Your task to perform on an android device: make emails show in primary in the gmail app Image 0: 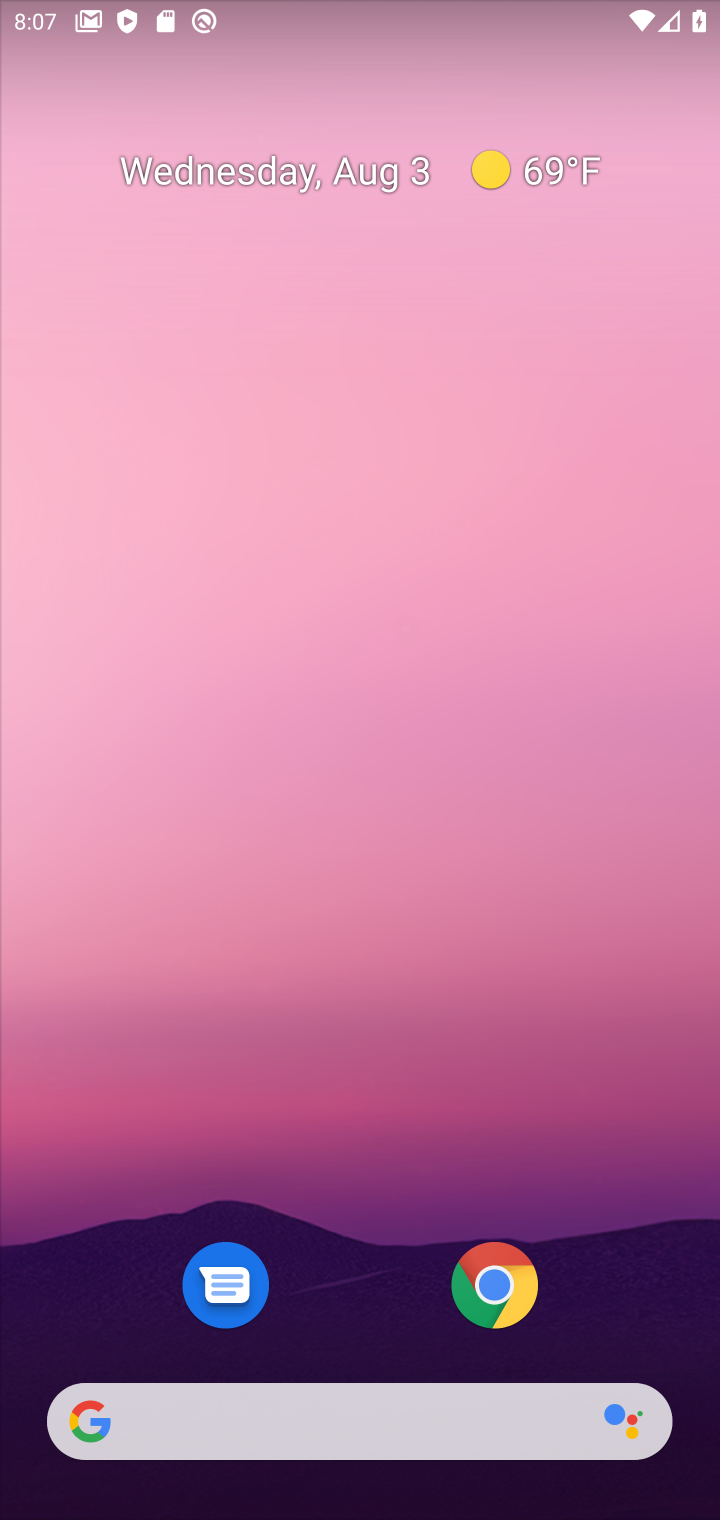
Step 0: click (648, 1268)
Your task to perform on an android device: make emails show in primary in the gmail app Image 1: 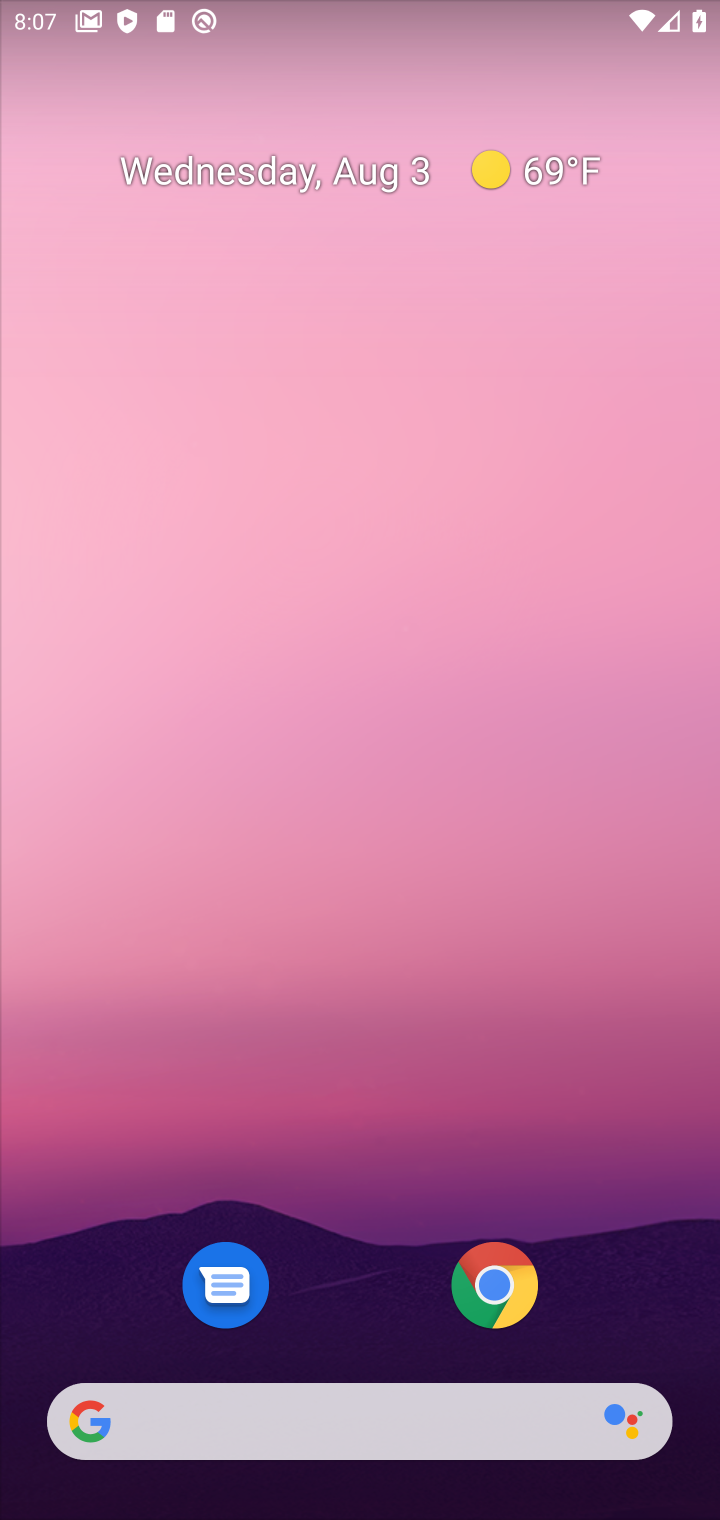
Step 1: drag from (637, 1279) to (637, 354)
Your task to perform on an android device: make emails show in primary in the gmail app Image 2: 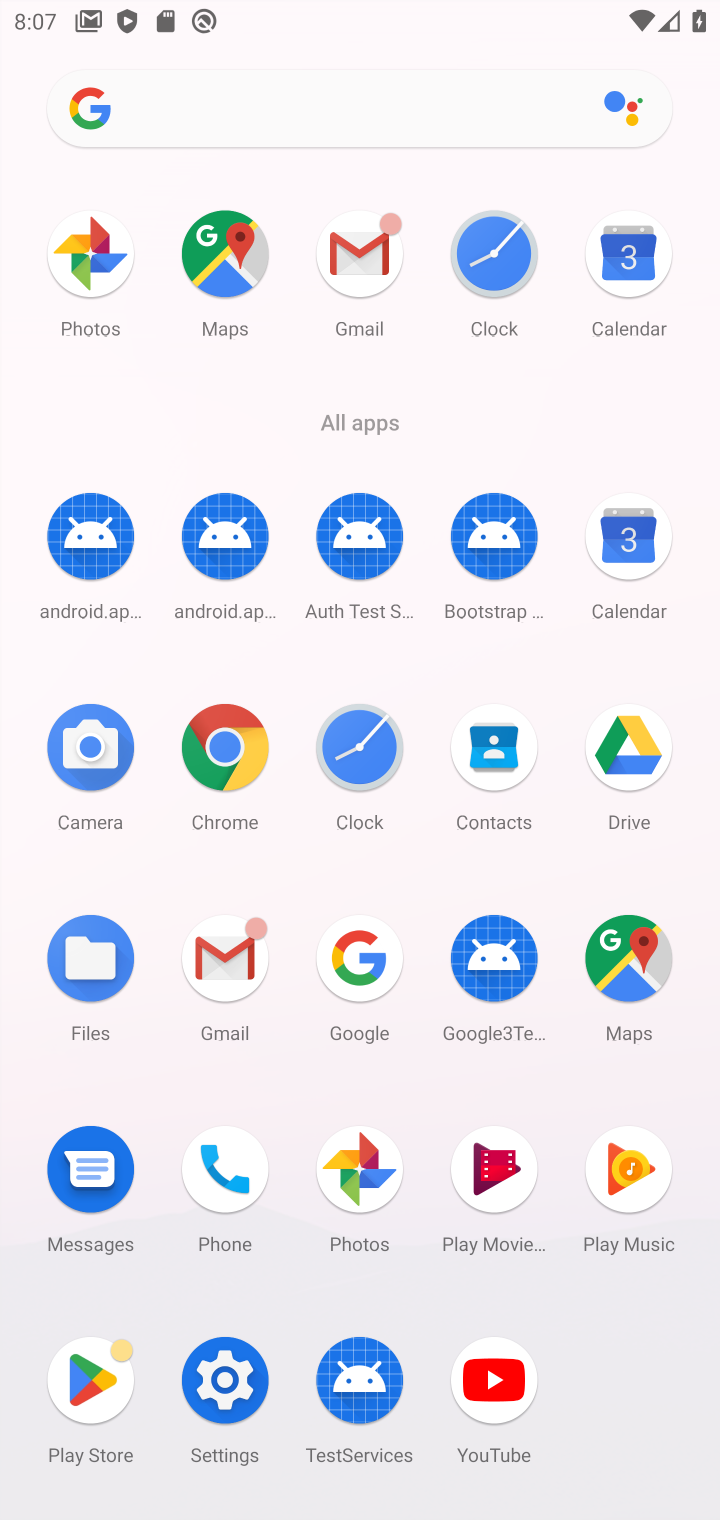
Step 2: click (638, 350)
Your task to perform on an android device: make emails show in primary in the gmail app Image 3: 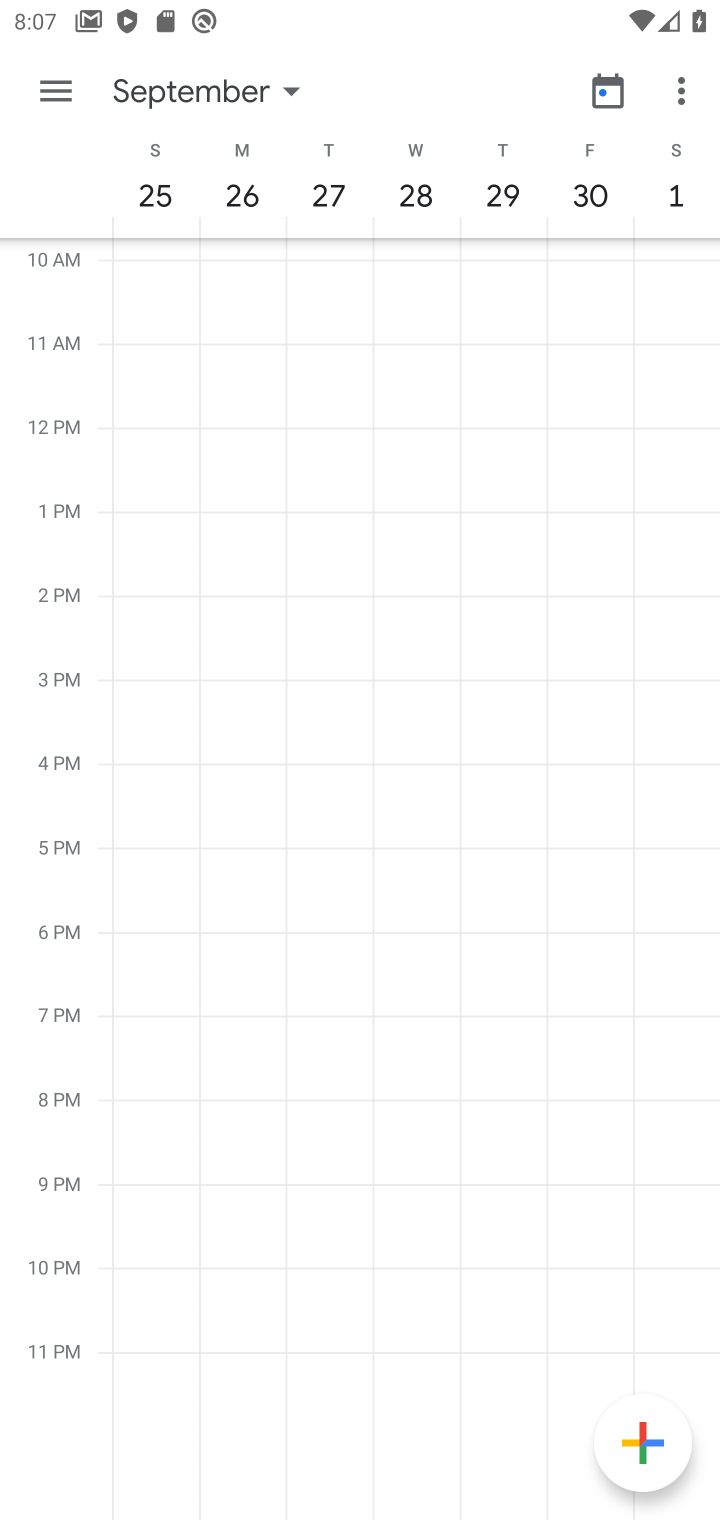
Step 3: press home button
Your task to perform on an android device: make emails show in primary in the gmail app Image 4: 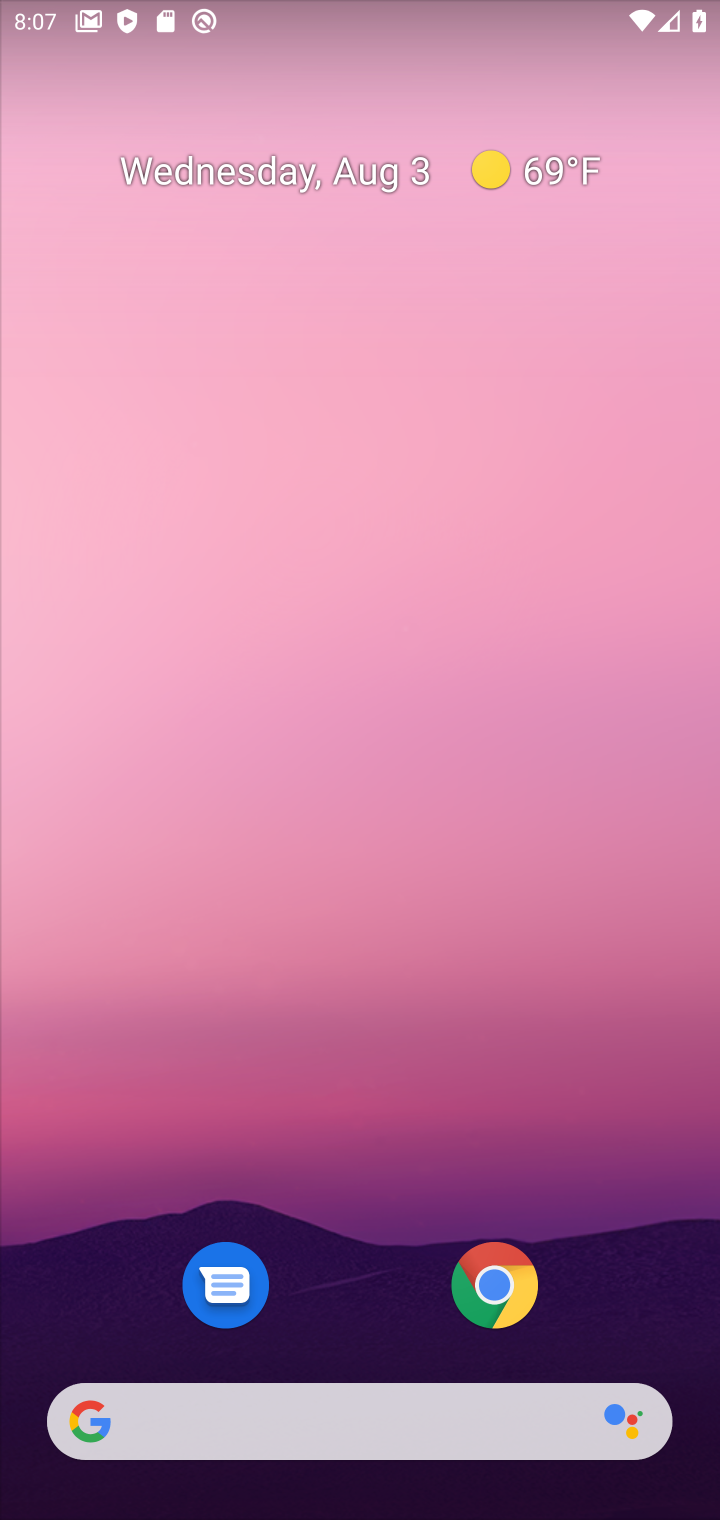
Step 4: drag from (612, 1266) to (478, 258)
Your task to perform on an android device: make emails show in primary in the gmail app Image 5: 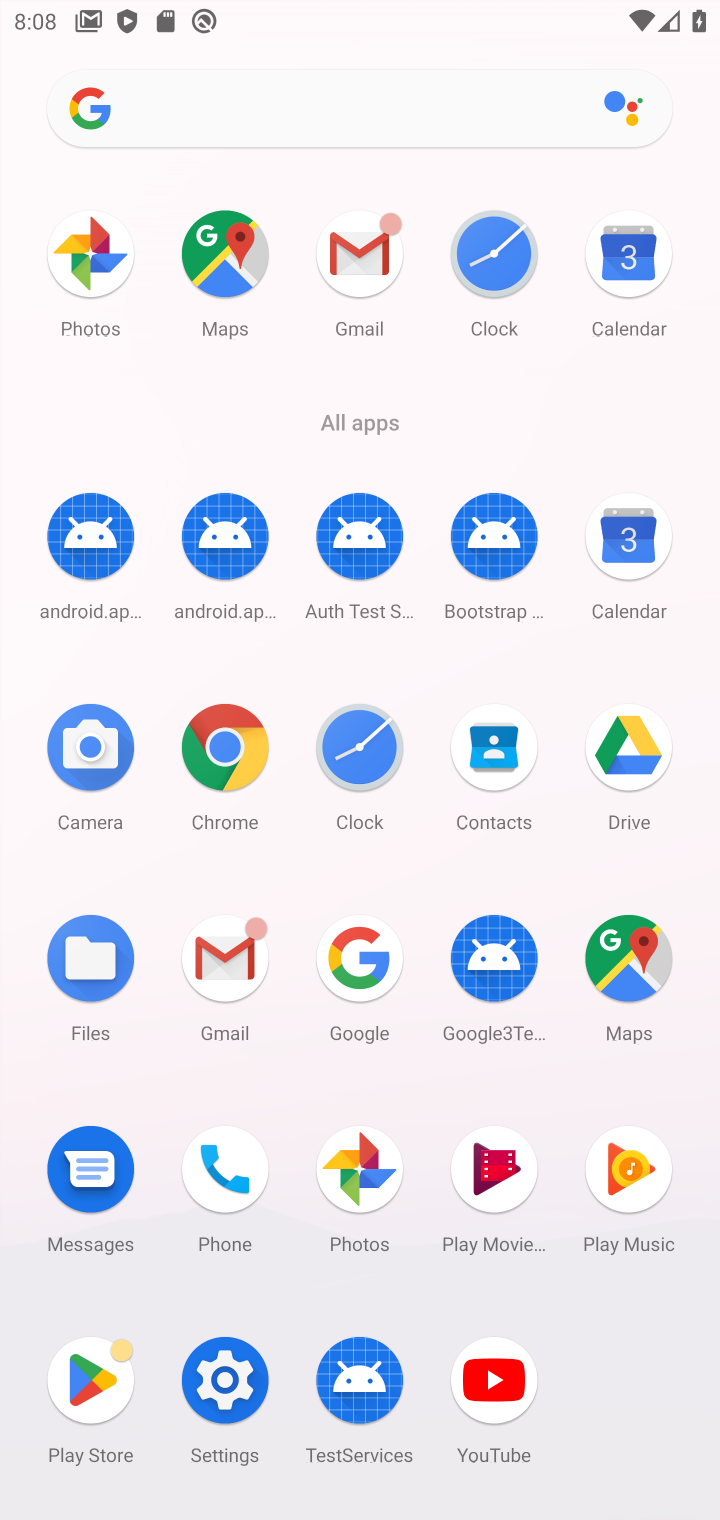
Step 5: click (197, 941)
Your task to perform on an android device: make emails show in primary in the gmail app Image 6: 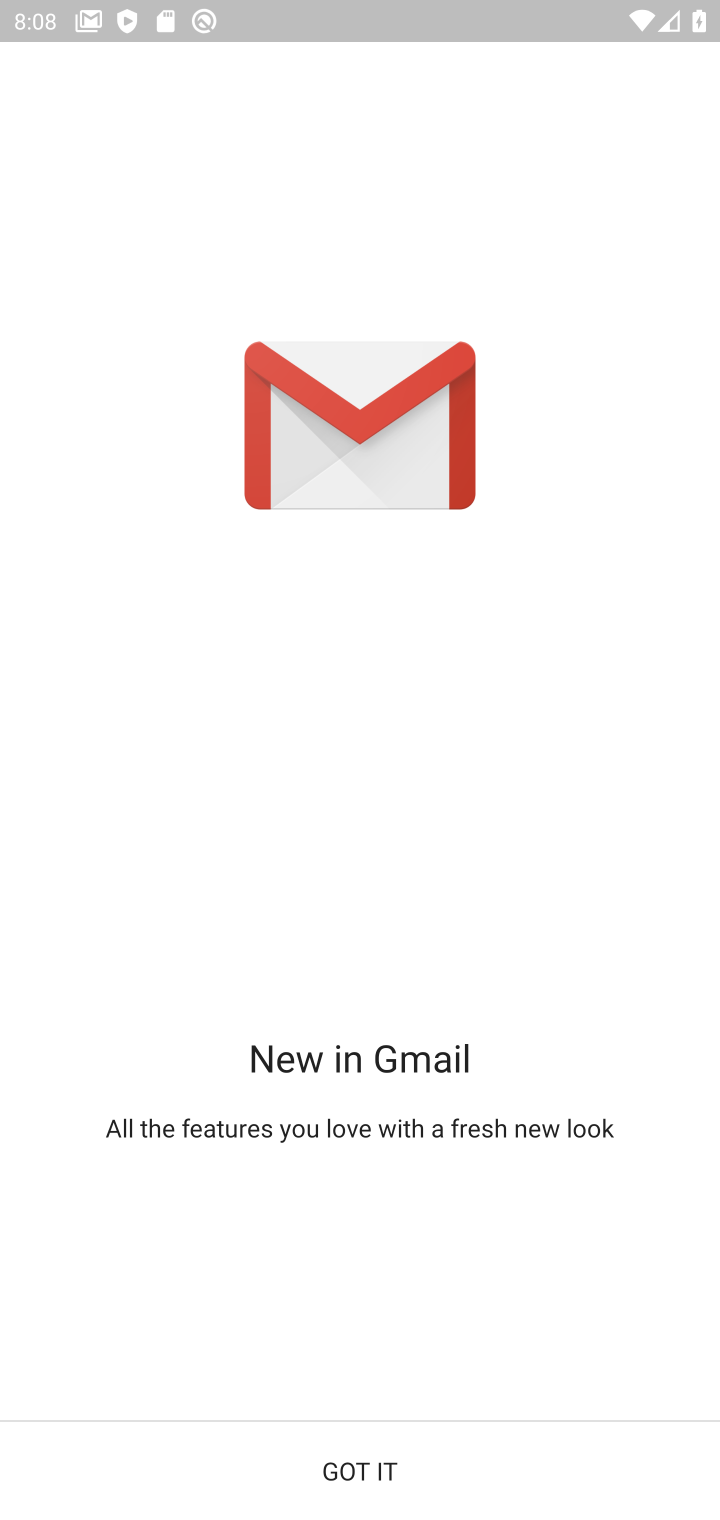
Step 6: click (495, 1484)
Your task to perform on an android device: make emails show in primary in the gmail app Image 7: 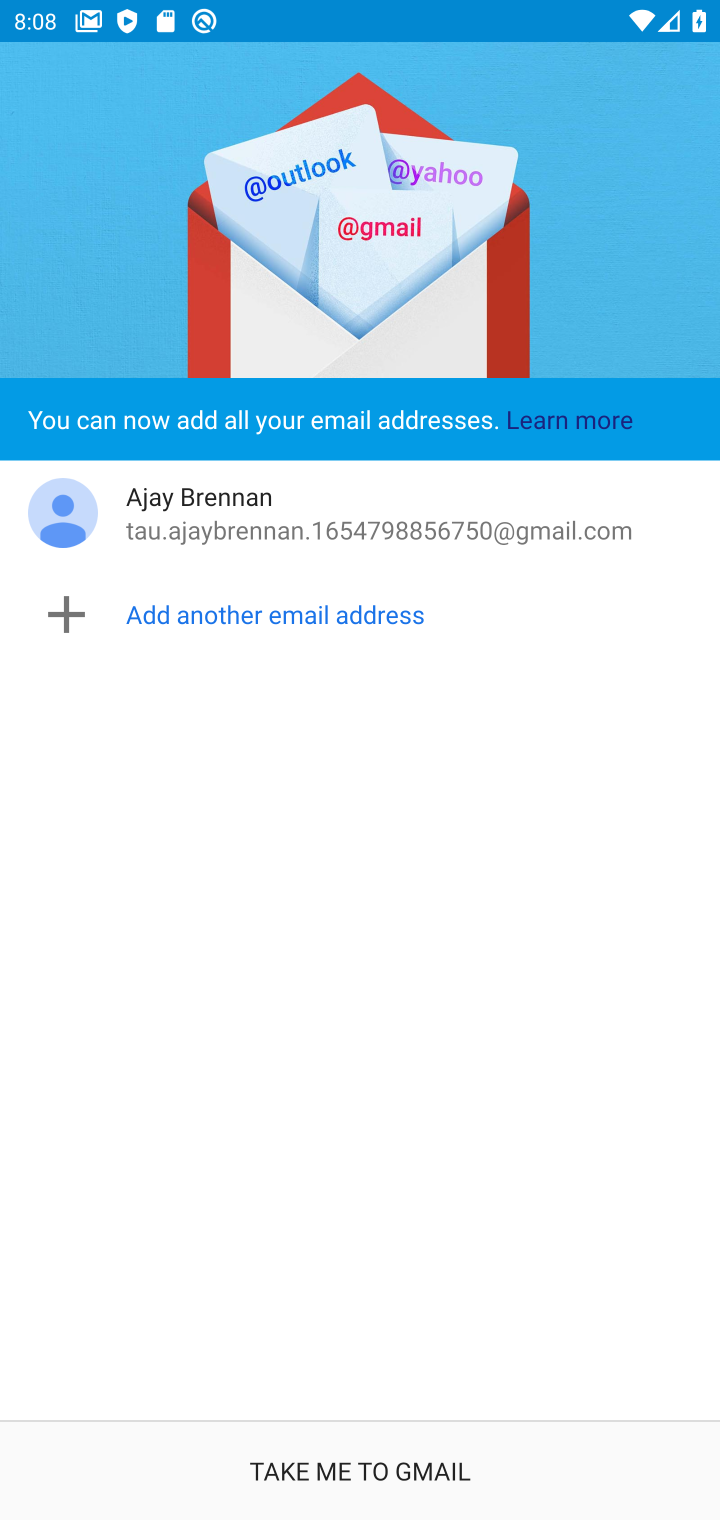
Step 7: click (437, 1449)
Your task to perform on an android device: make emails show in primary in the gmail app Image 8: 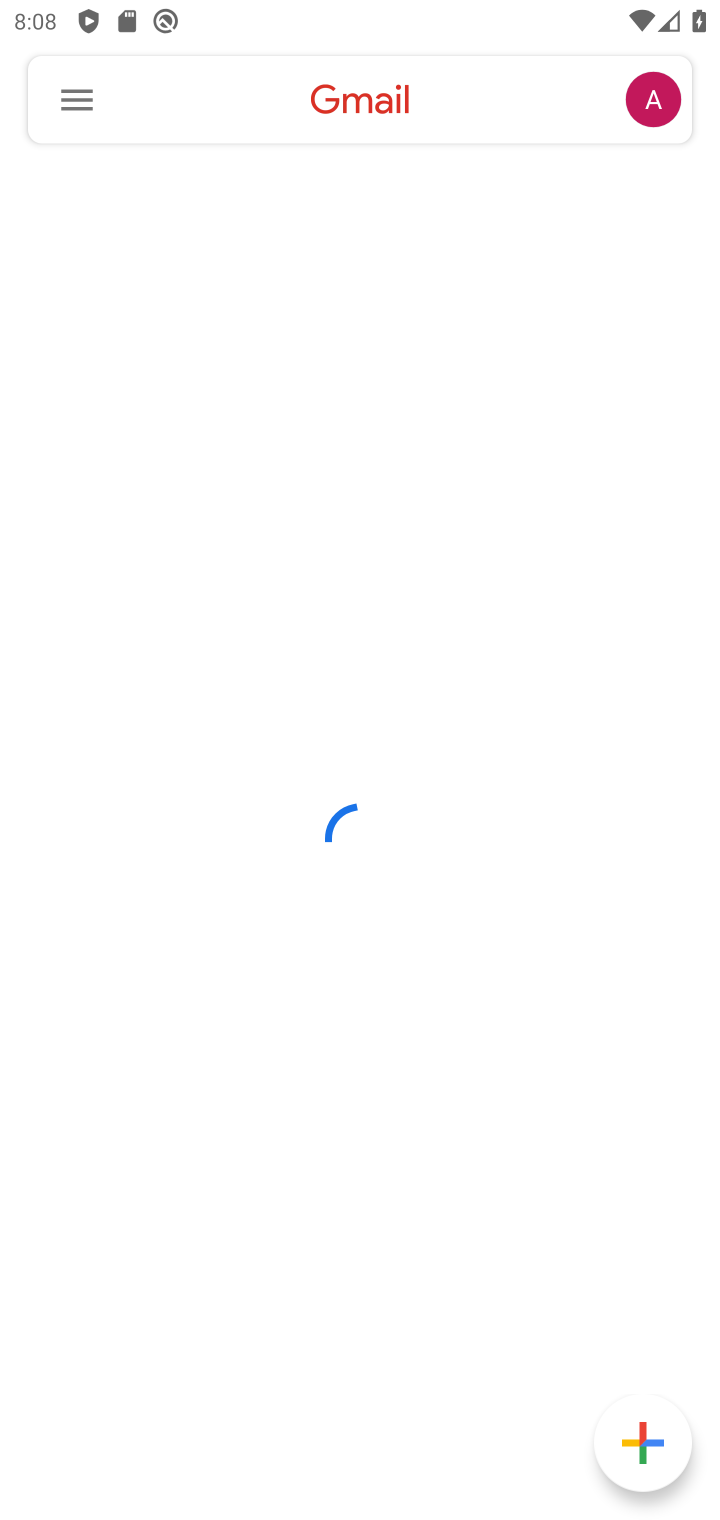
Step 8: click (75, 84)
Your task to perform on an android device: make emails show in primary in the gmail app Image 9: 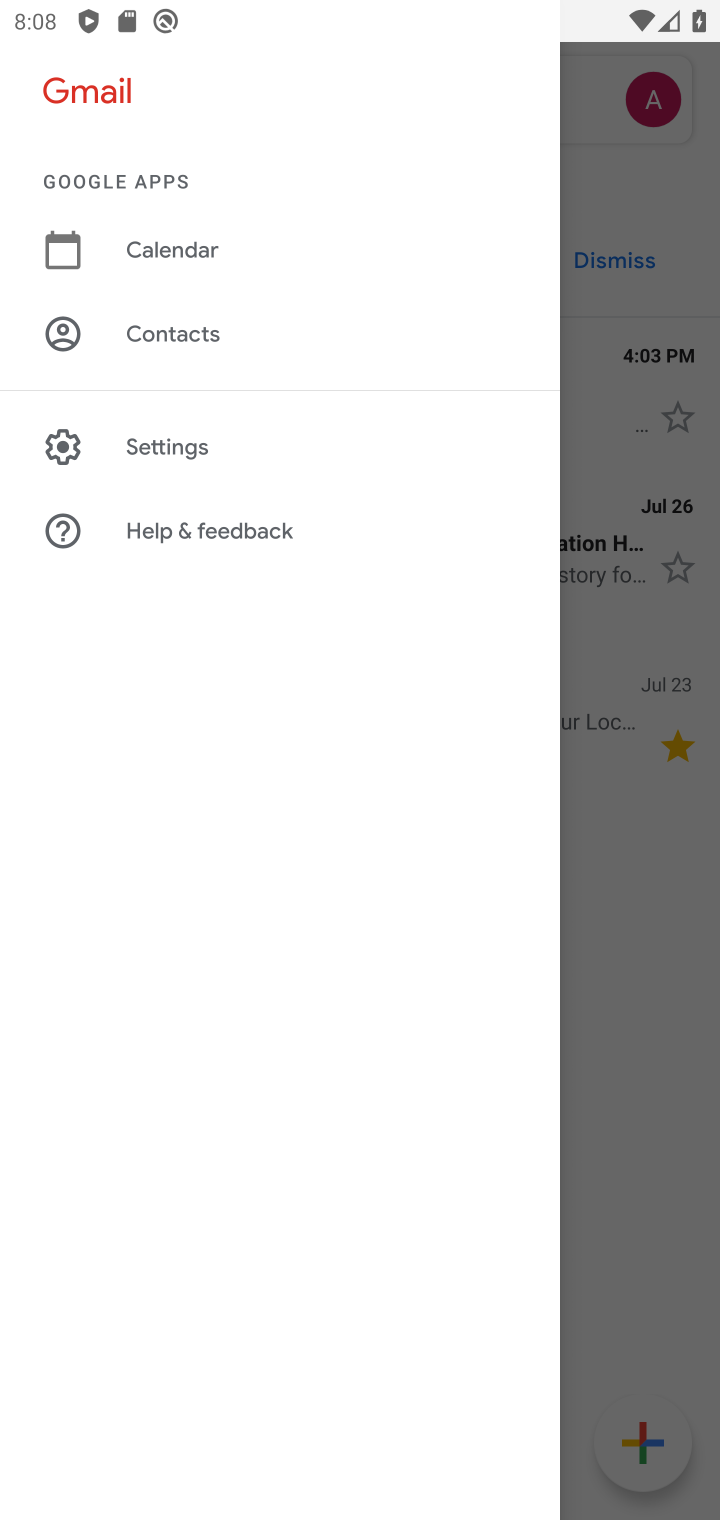
Step 9: click (183, 447)
Your task to perform on an android device: make emails show in primary in the gmail app Image 10: 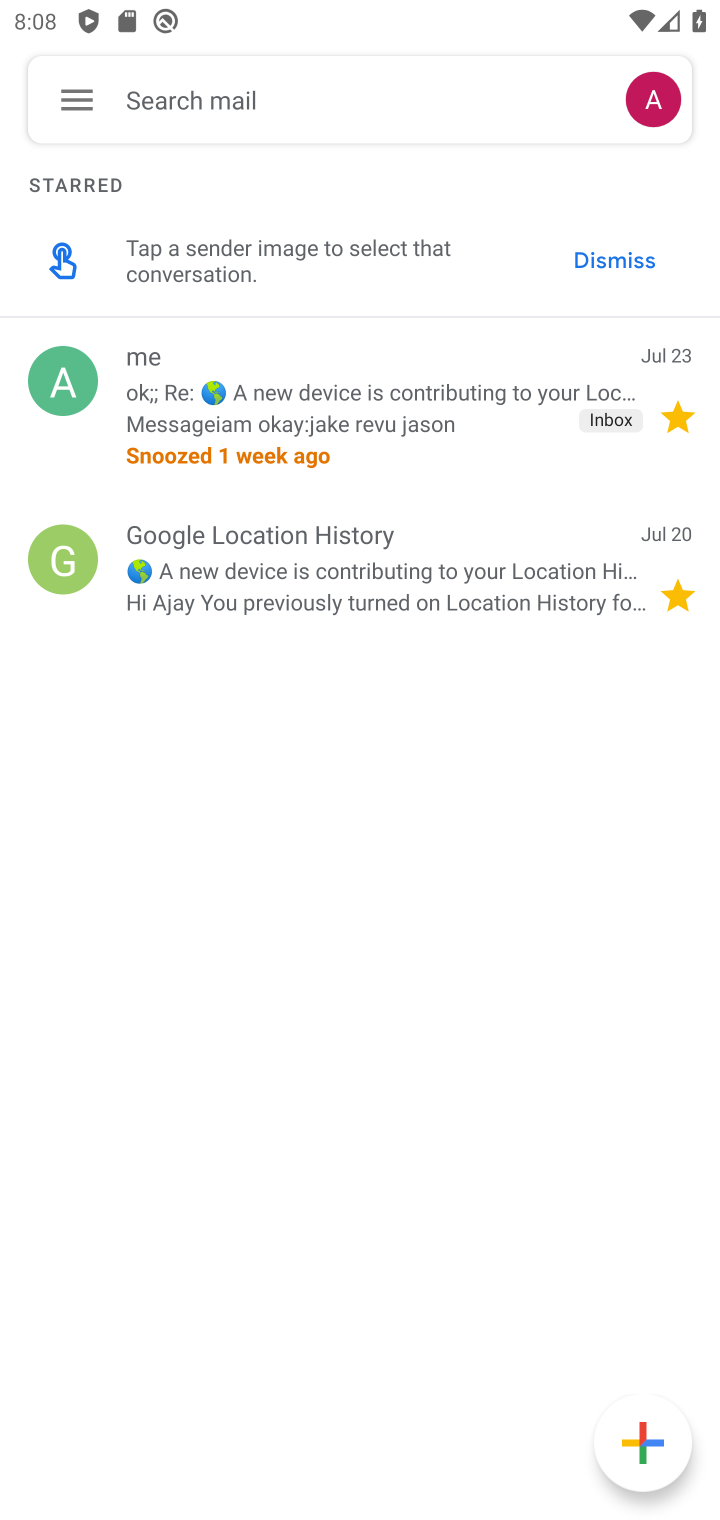
Step 10: click (79, 79)
Your task to perform on an android device: make emails show in primary in the gmail app Image 11: 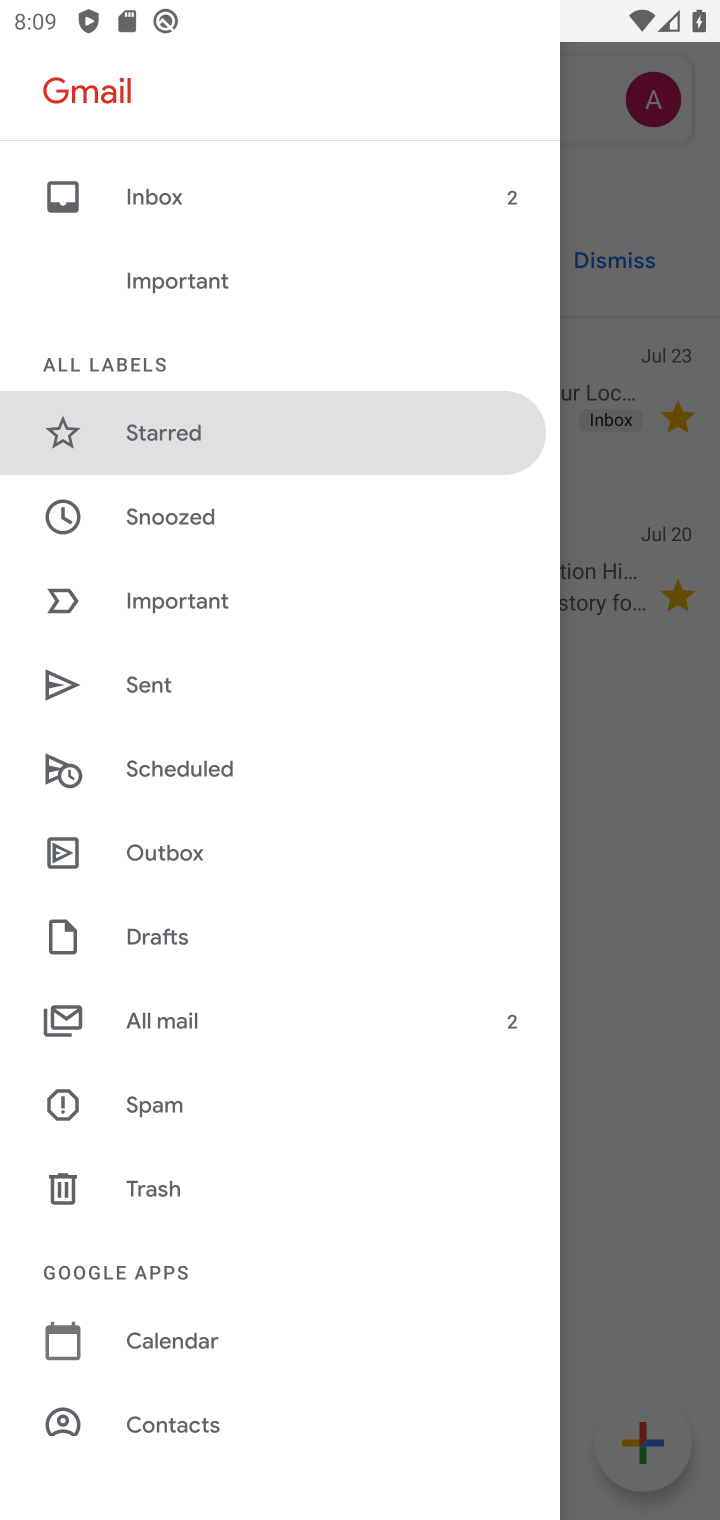
Step 11: drag from (408, 1346) to (455, 600)
Your task to perform on an android device: make emails show in primary in the gmail app Image 12: 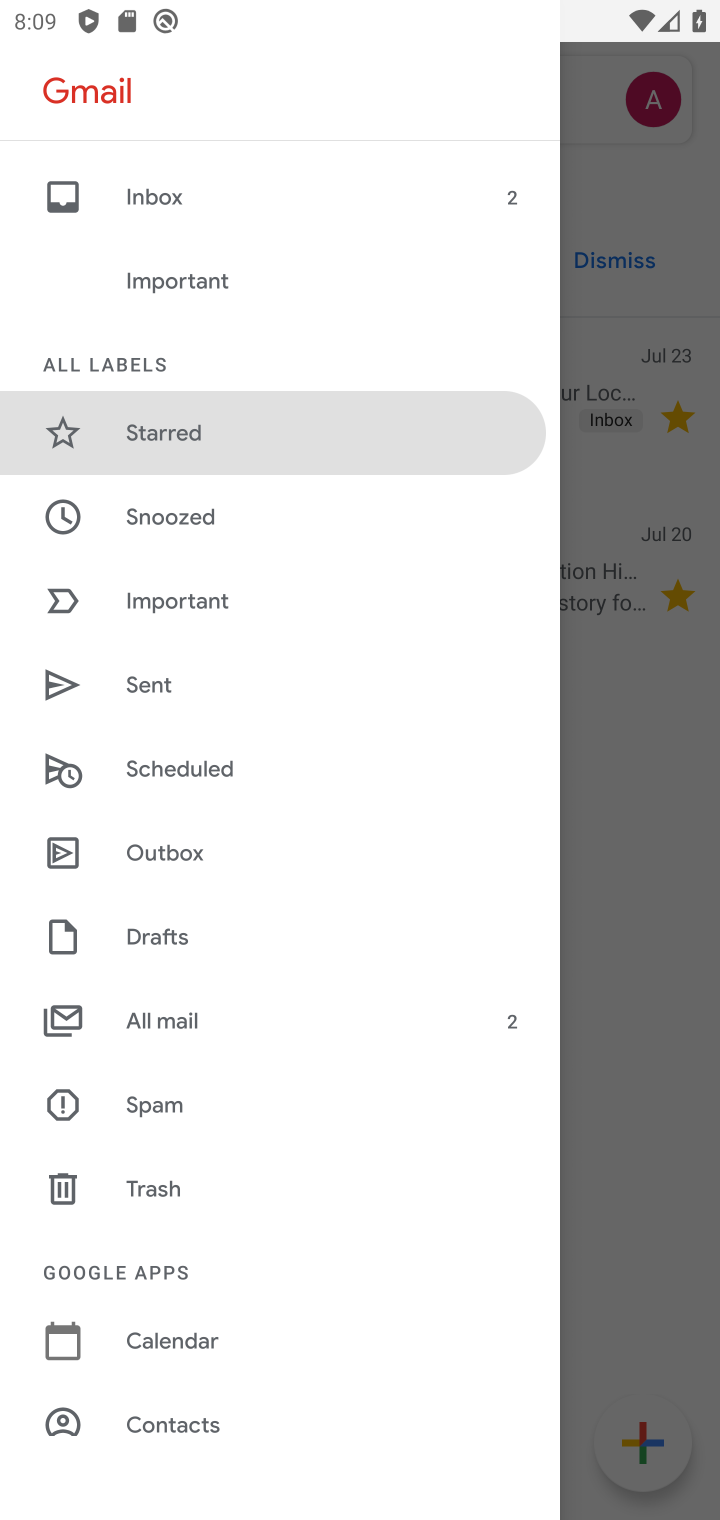
Step 12: drag from (340, 1386) to (679, 330)
Your task to perform on an android device: make emails show in primary in the gmail app Image 13: 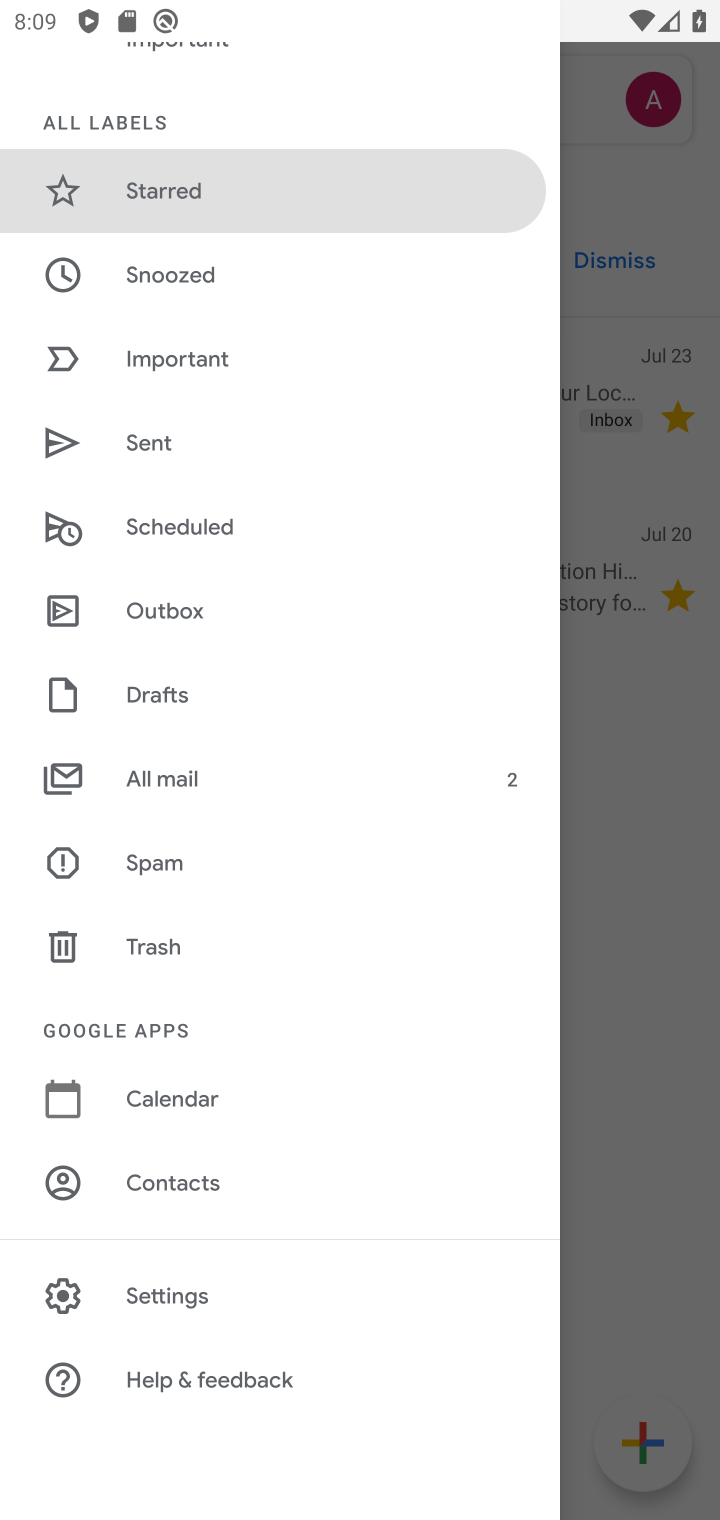
Step 13: click (199, 1286)
Your task to perform on an android device: make emails show in primary in the gmail app Image 14: 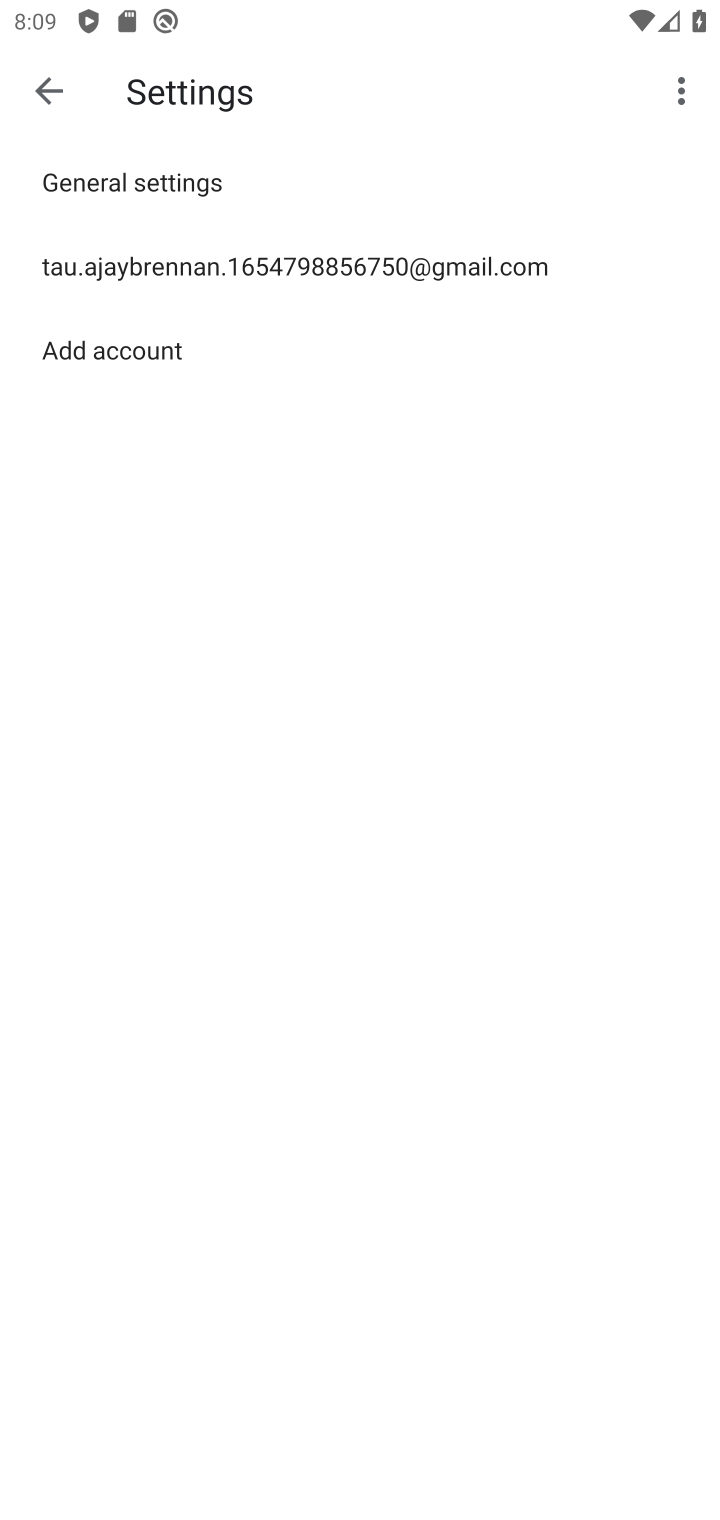
Step 14: click (123, 264)
Your task to perform on an android device: make emails show in primary in the gmail app Image 15: 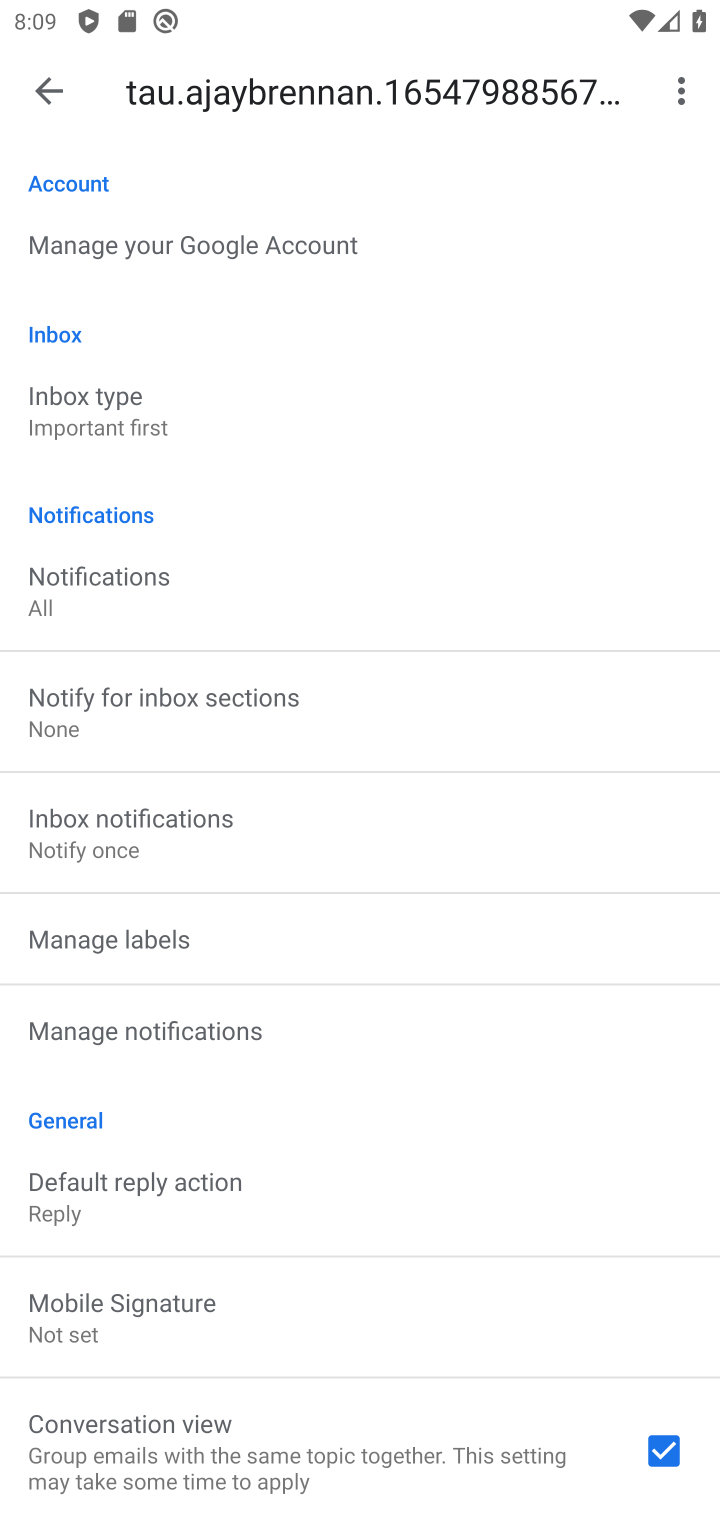
Step 15: click (198, 389)
Your task to perform on an android device: make emails show in primary in the gmail app Image 16: 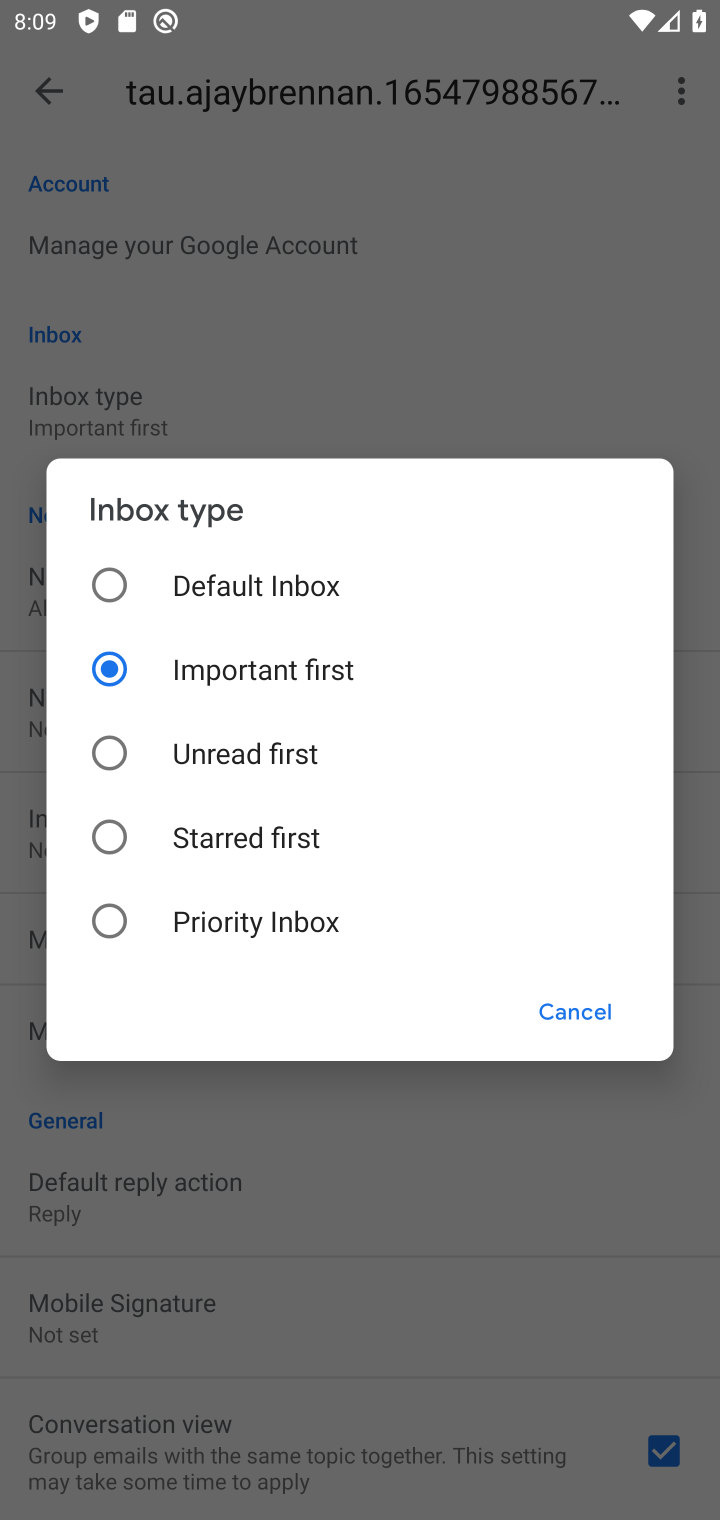
Step 16: click (237, 577)
Your task to perform on an android device: make emails show in primary in the gmail app Image 17: 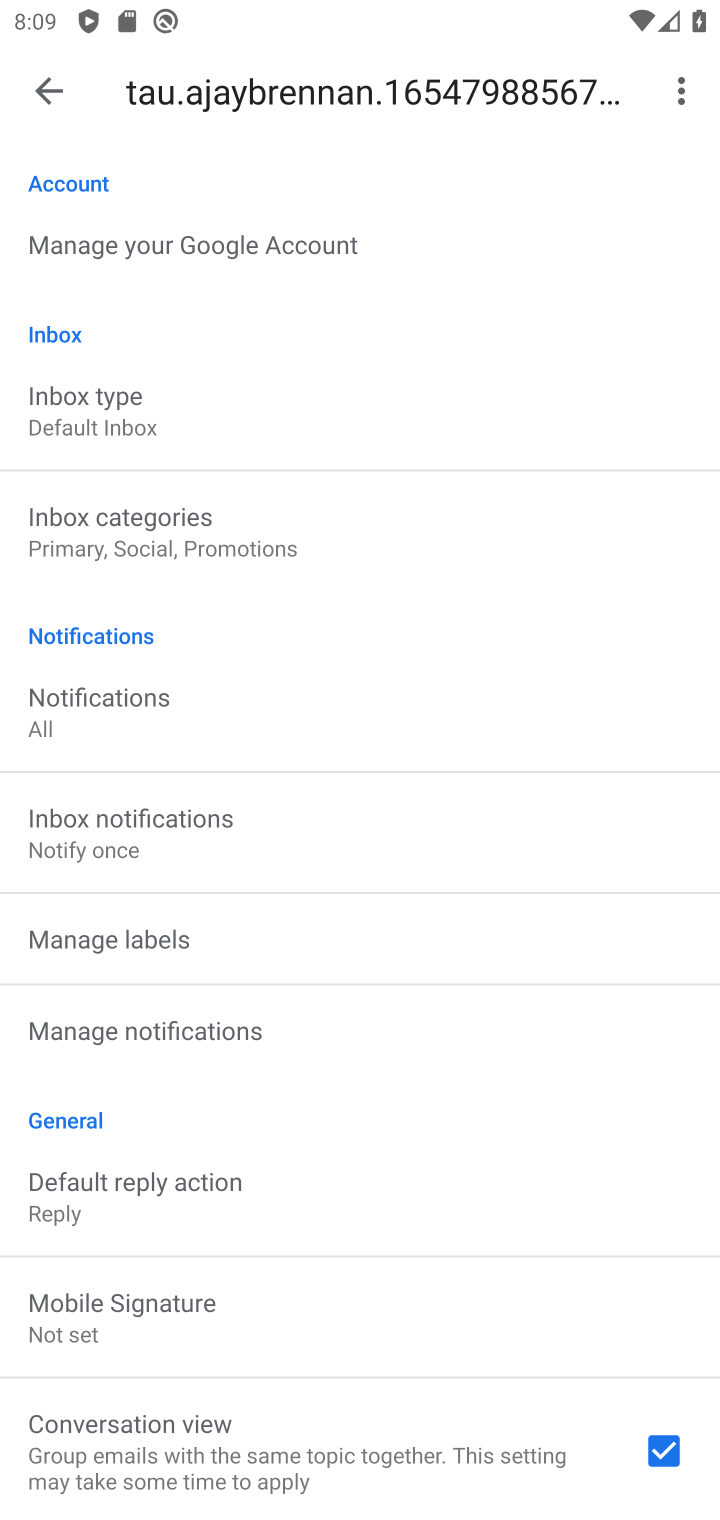
Step 17: click (337, 547)
Your task to perform on an android device: make emails show in primary in the gmail app Image 18: 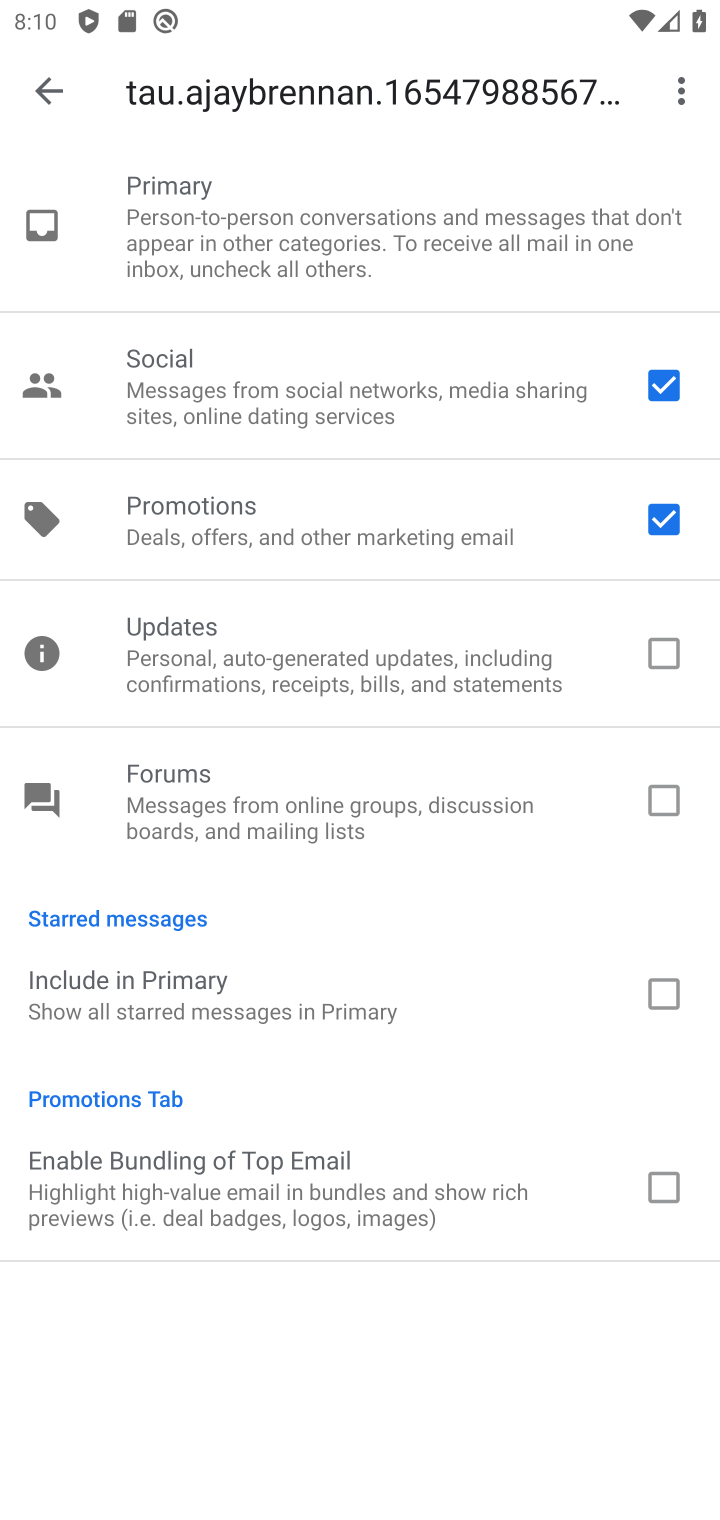
Step 18: click (663, 522)
Your task to perform on an android device: make emails show in primary in the gmail app Image 19: 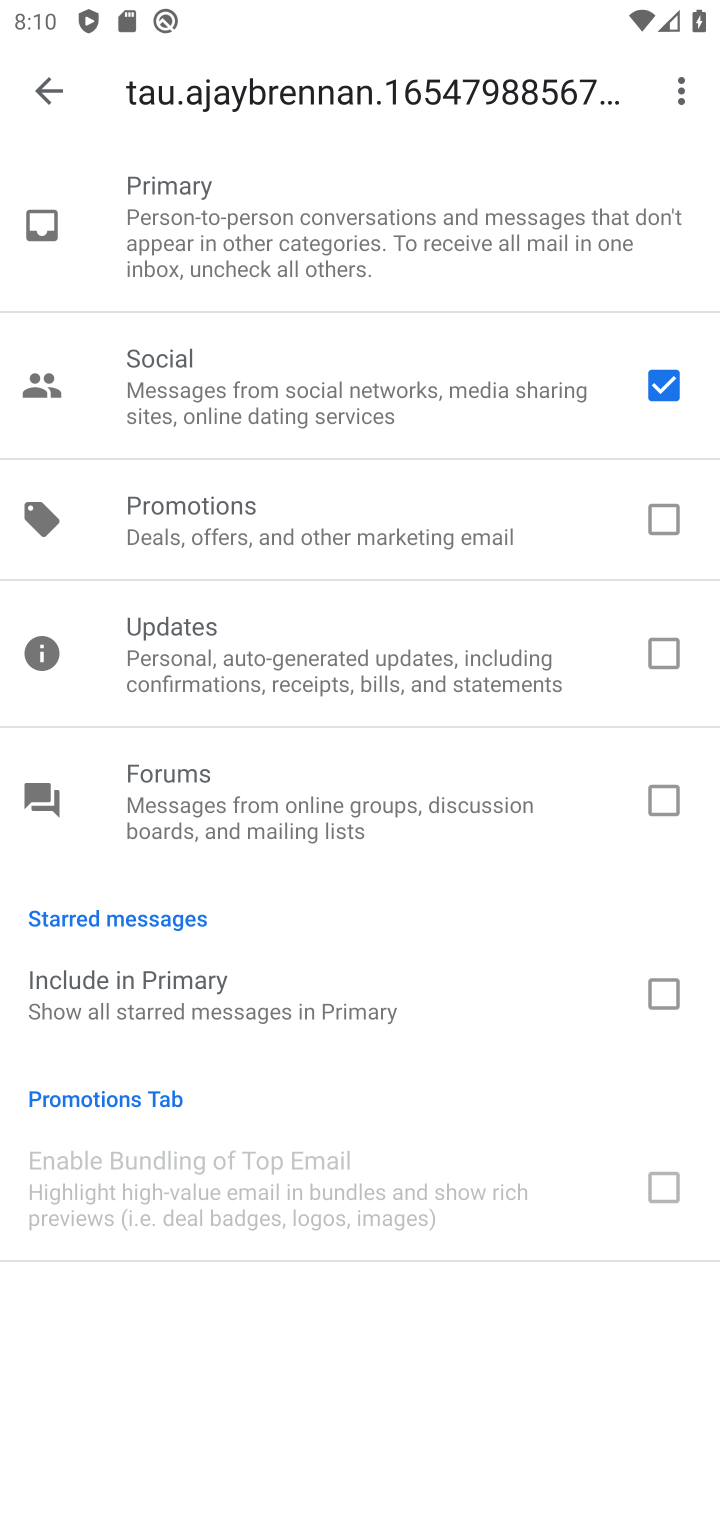
Step 19: click (669, 387)
Your task to perform on an android device: make emails show in primary in the gmail app Image 20: 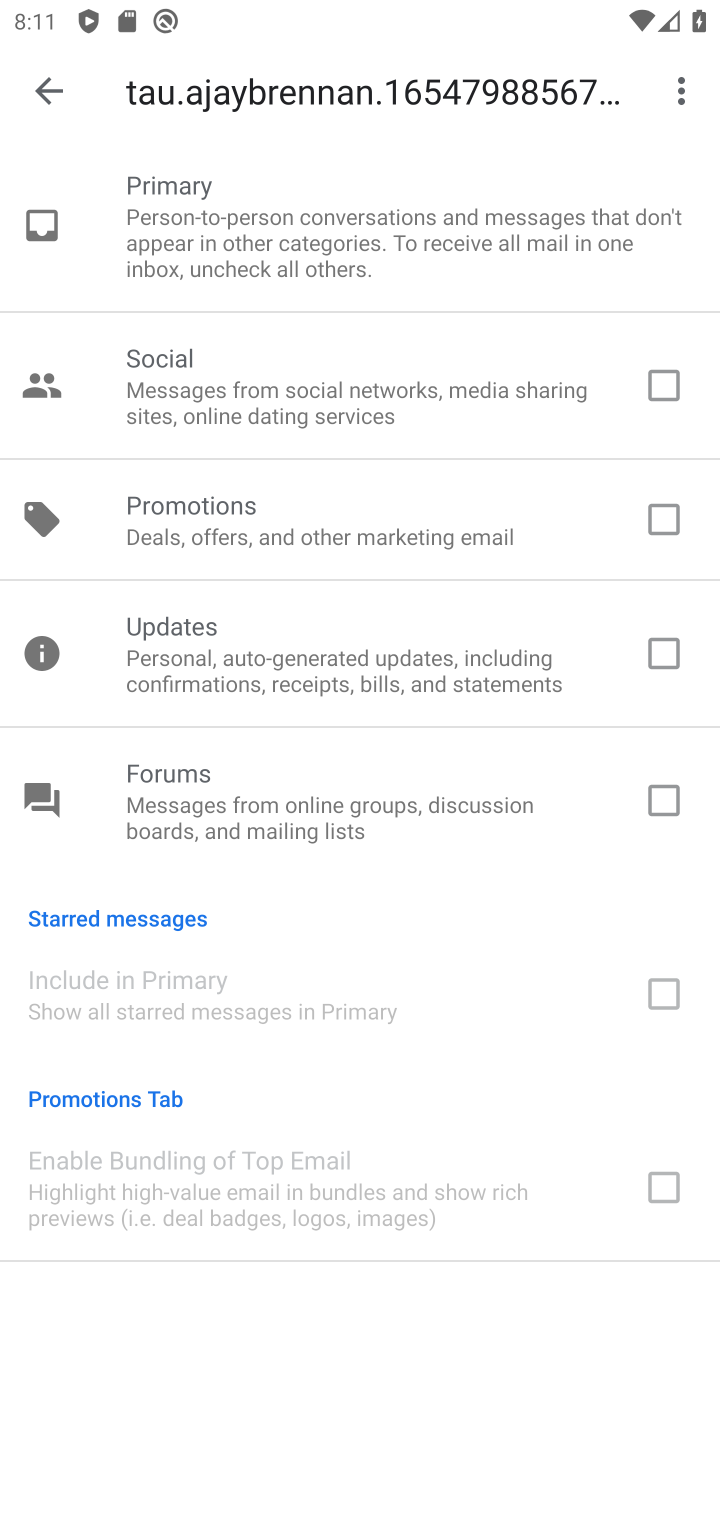
Step 20: task complete